Your task to perform on an android device: What's the weather going to be this weekend? Image 0: 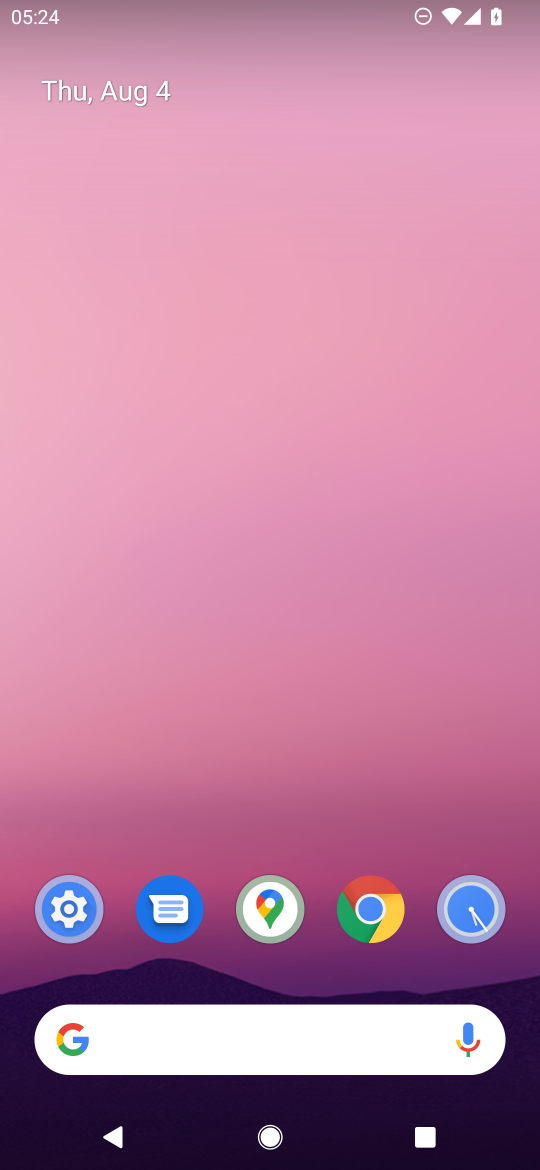
Step 0: press home button
Your task to perform on an android device: What's the weather going to be this weekend? Image 1: 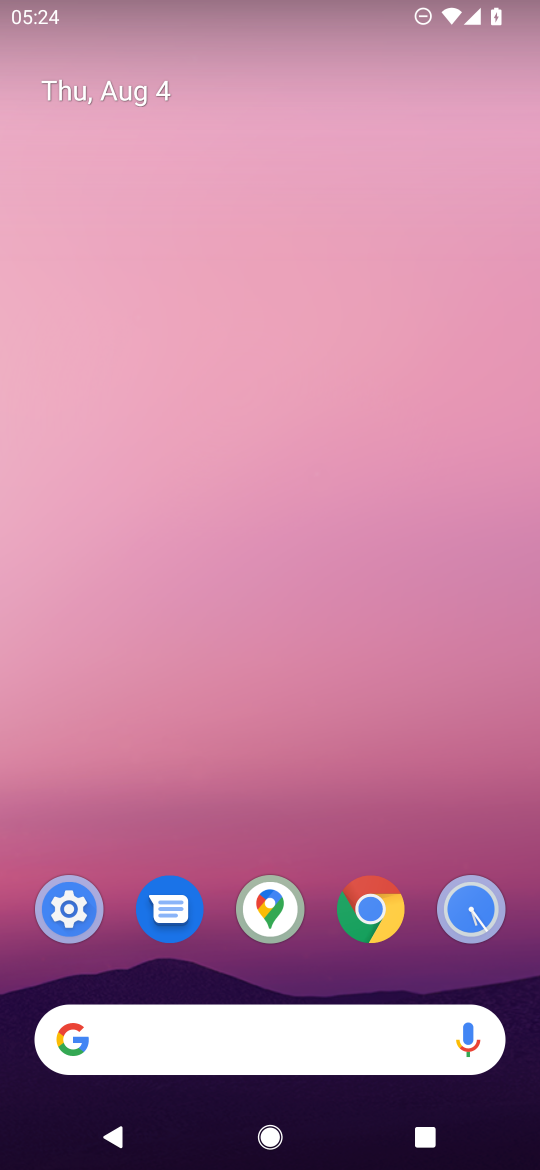
Step 1: click (62, 1050)
Your task to perform on an android device: What's the weather going to be this weekend? Image 2: 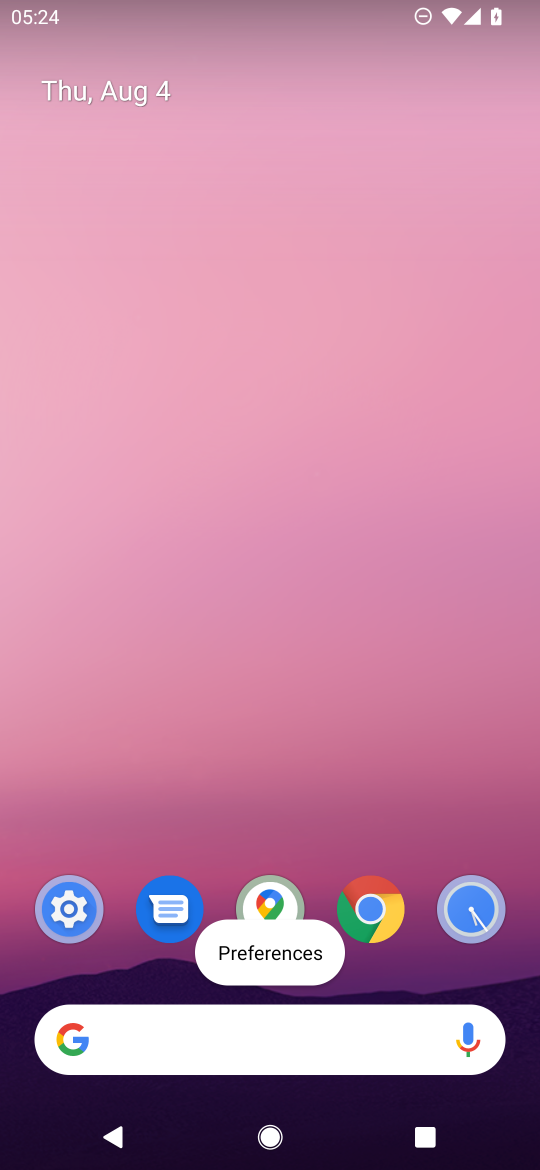
Step 2: click (62, 1050)
Your task to perform on an android device: What's the weather going to be this weekend? Image 3: 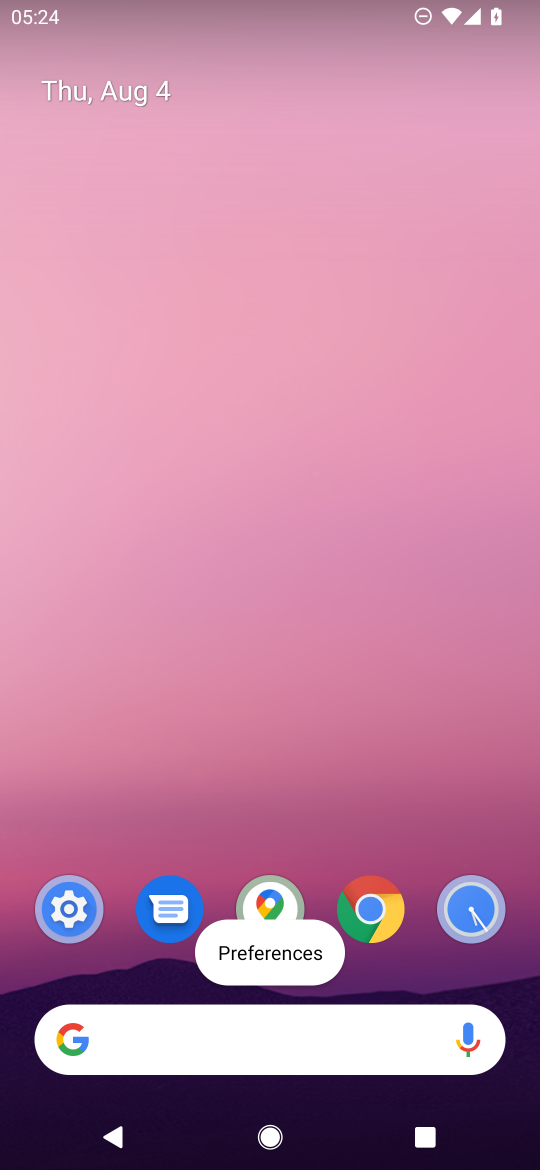
Step 3: click (81, 1050)
Your task to perform on an android device: What's the weather going to be this weekend? Image 4: 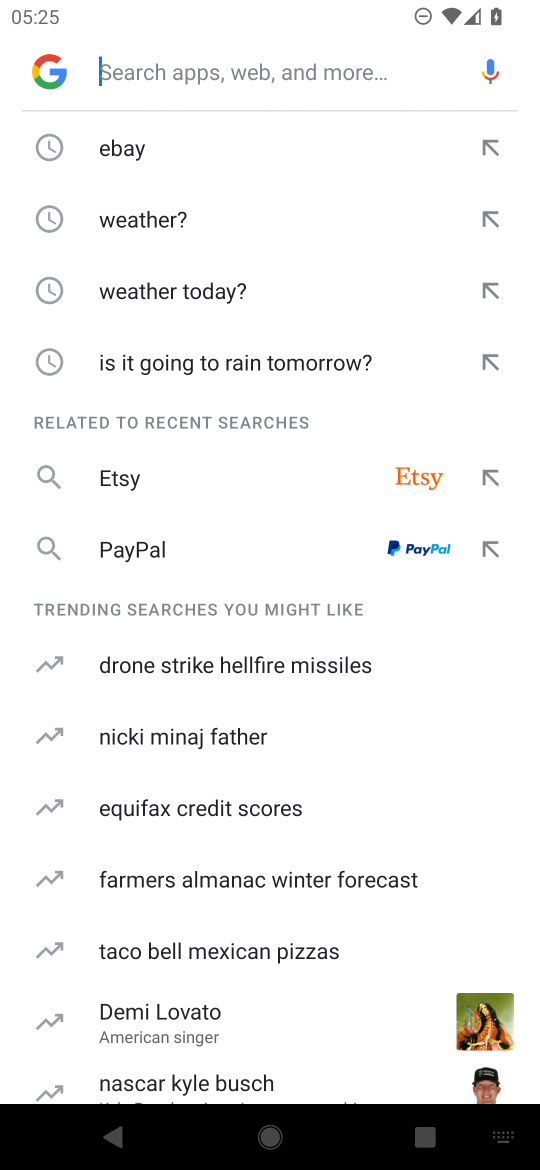
Step 4: type "weather going to be this weekend?"
Your task to perform on an android device: What's the weather going to be this weekend? Image 5: 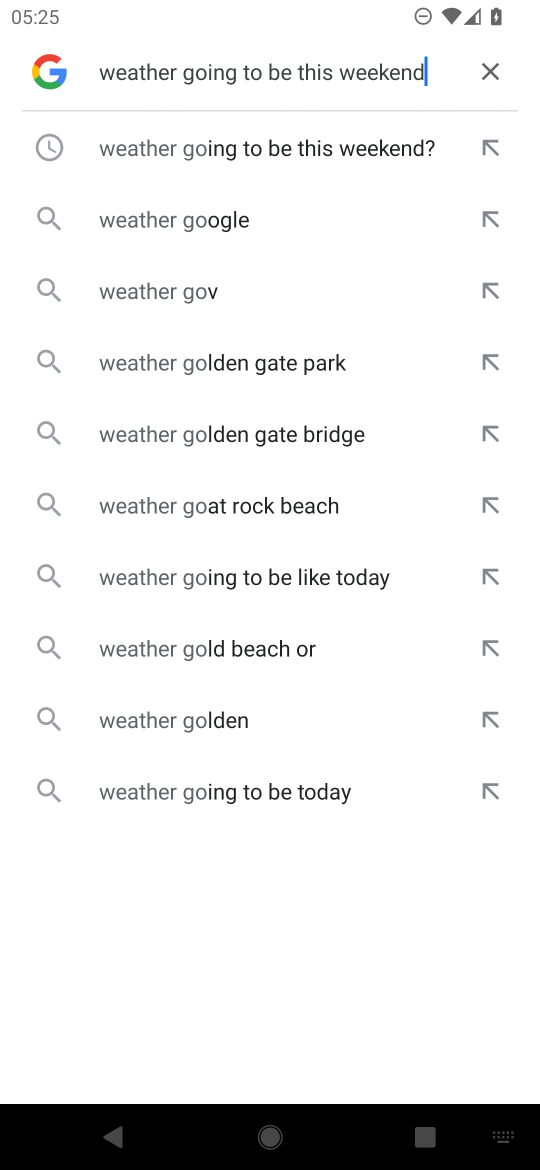
Step 5: press enter
Your task to perform on an android device: What's the weather going to be this weekend? Image 6: 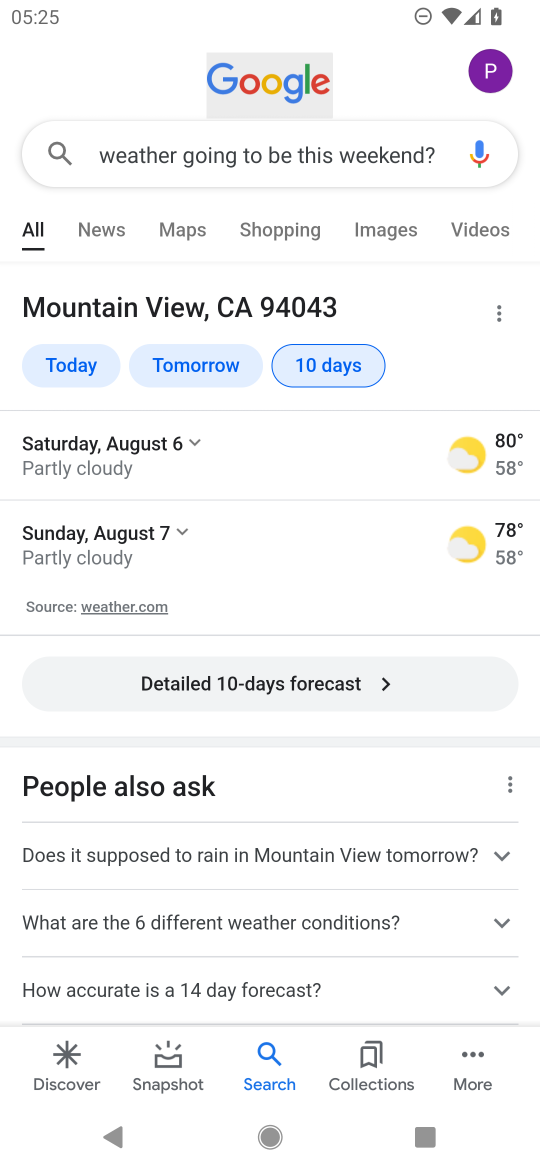
Step 6: task complete